Your task to perform on an android device: turn on notifications settings in the gmail app Image 0: 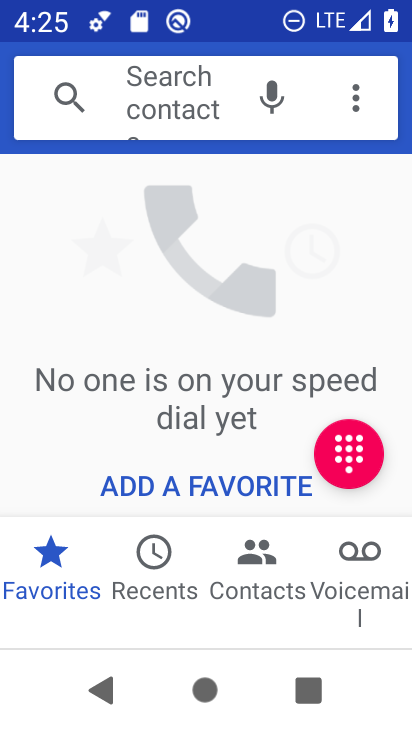
Step 0: press home button
Your task to perform on an android device: turn on notifications settings in the gmail app Image 1: 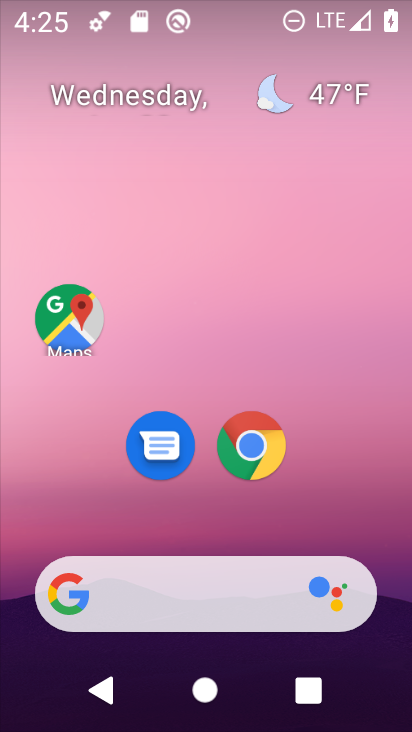
Step 1: drag from (187, 485) to (252, 41)
Your task to perform on an android device: turn on notifications settings in the gmail app Image 2: 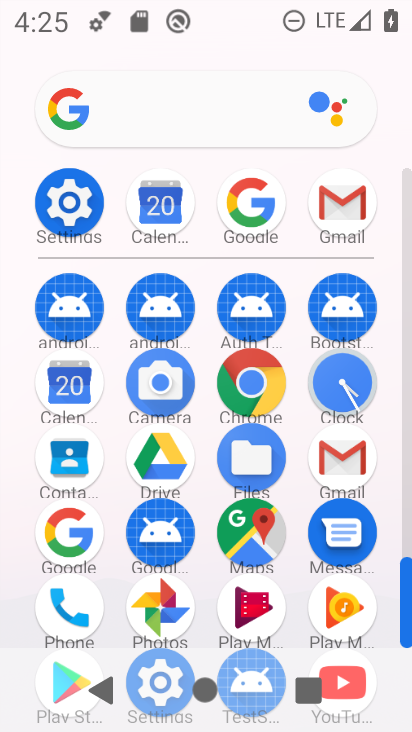
Step 2: click (346, 199)
Your task to perform on an android device: turn on notifications settings in the gmail app Image 3: 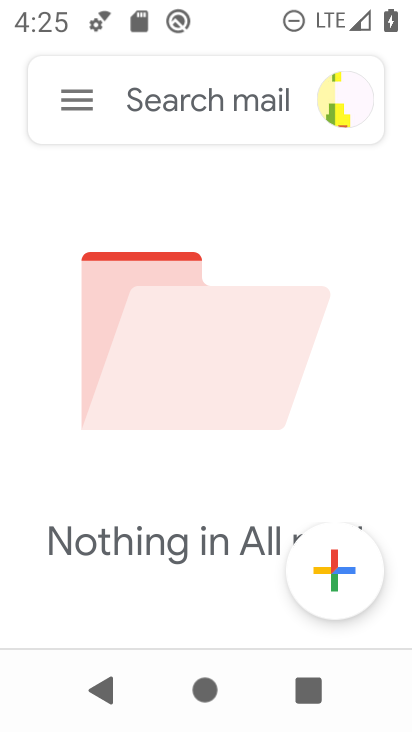
Step 3: click (75, 103)
Your task to perform on an android device: turn on notifications settings in the gmail app Image 4: 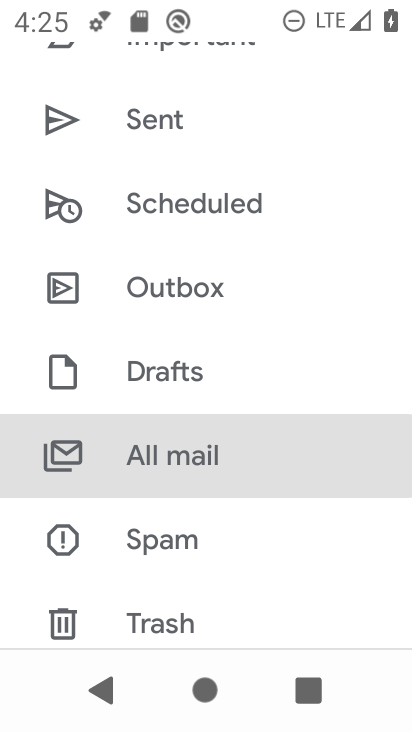
Step 4: drag from (235, 521) to (289, 329)
Your task to perform on an android device: turn on notifications settings in the gmail app Image 5: 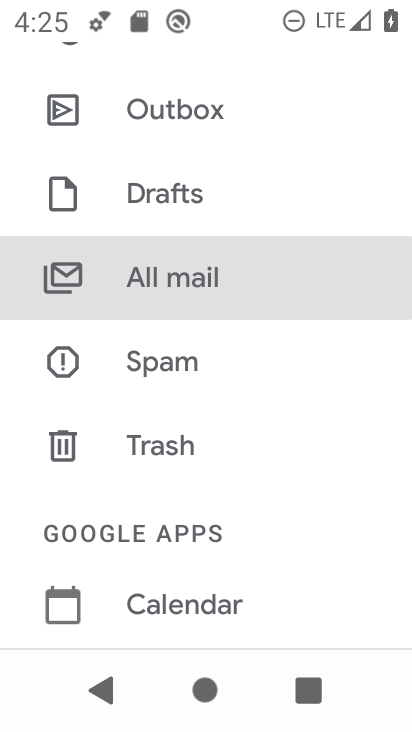
Step 5: drag from (214, 510) to (274, 277)
Your task to perform on an android device: turn on notifications settings in the gmail app Image 6: 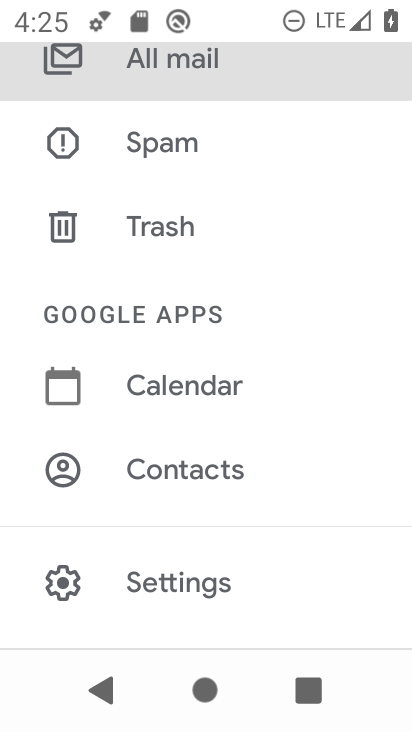
Step 6: click (185, 584)
Your task to perform on an android device: turn on notifications settings in the gmail app Image 7: 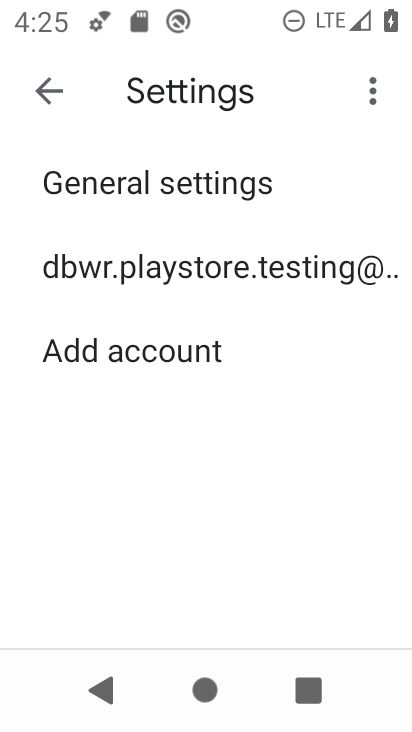
Step 7: click (213, 266)
Your task to perform on an android device: turn on notifications settings in the gmail app Image 8: 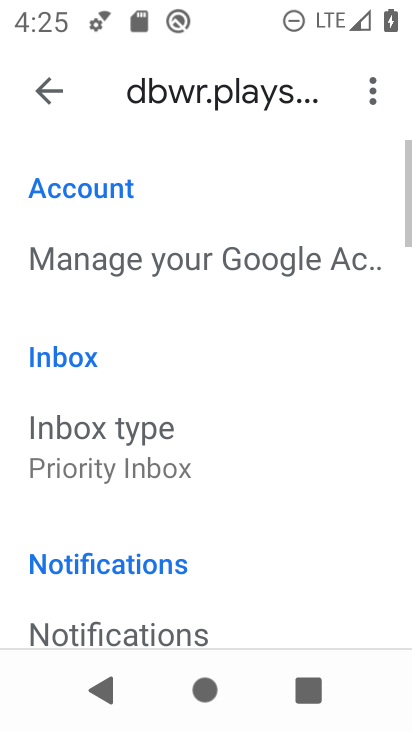
Step 8: drag from (218, 517) to (301, 272)
Your task to perform on an android device: turn on notifications settings in the gmail app Image 9: 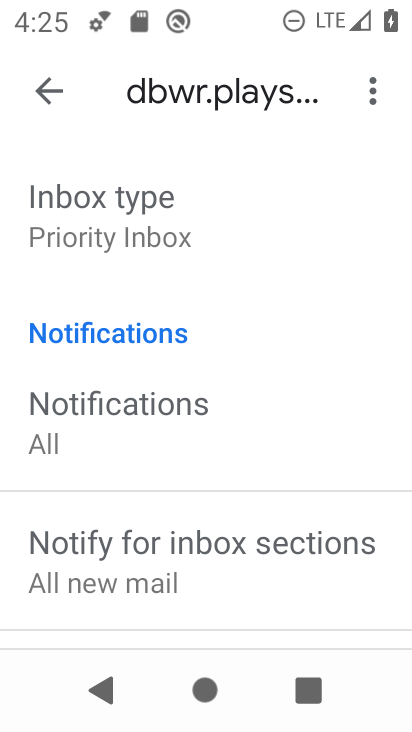
Step 9: drag from (238, 464) to (280, 274)
Your task to perform on an android device: turn on notifications settings in the gmail app Image 10: 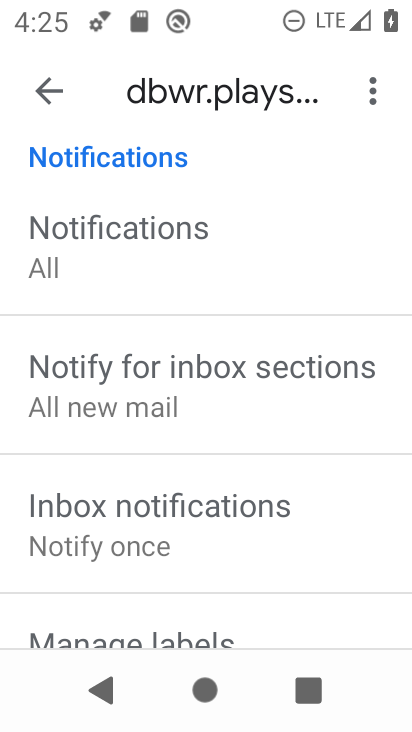
Step 10: drag from (231, 552) to (261, 355)
Your task to perform on an android device: turn on notifications settings in the gmail app Image 11: 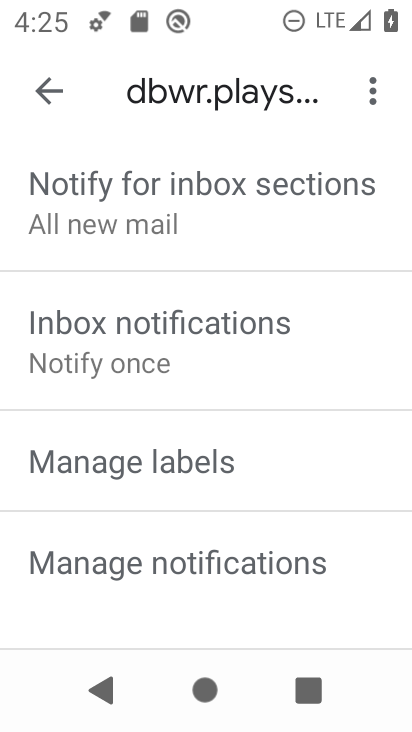
Step 11: drag from (245, 467) to (280, 363)
Your task to perform on an android device: turn on notifications settings in the gmail app Image 12: 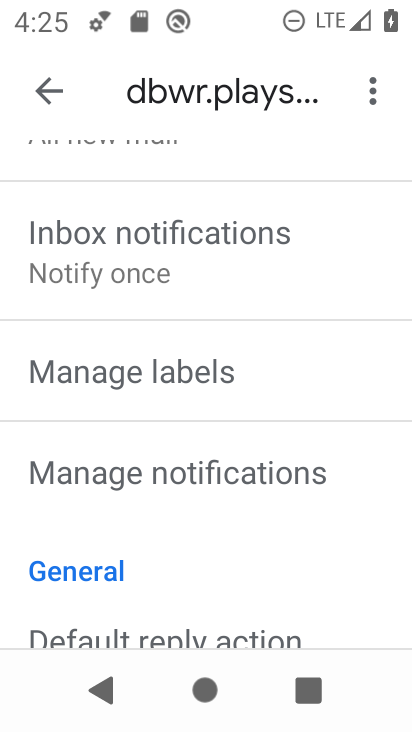
Step 12: click (259, 462)
Your task to perform on an android device: turn on notifications settings in the gmail app Image 13: 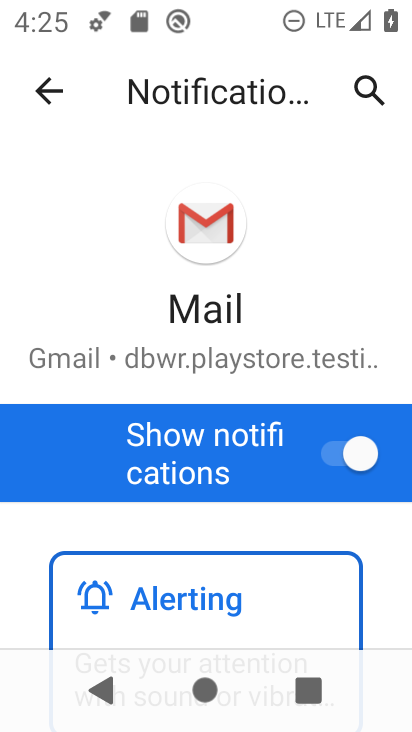
Step 13: task complete